Your task to perform on an android device: Go to ESPN.com Image 0: 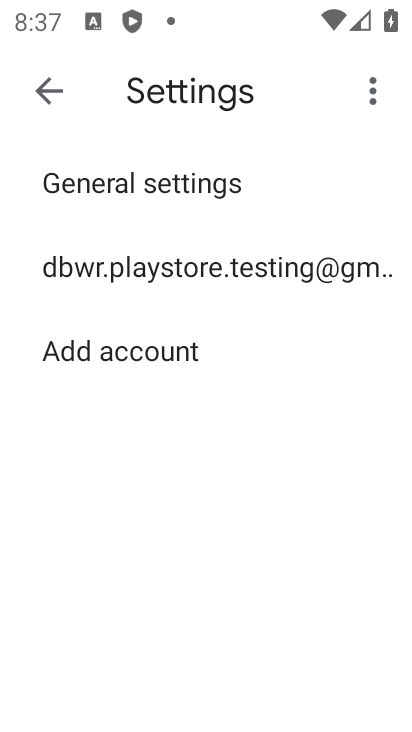
Step 0: press home button
Your task to perform on an android device: Go to ESPN.com Image 1: 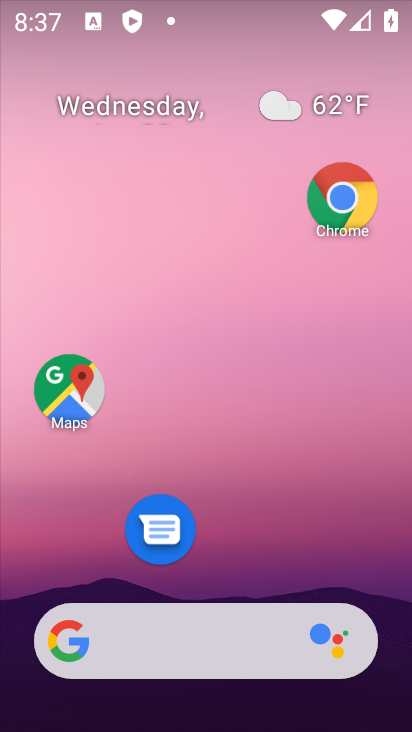
Step 1: click (345, 190)
Your task to perform on an android device: Go to ESPN.com Image 2: 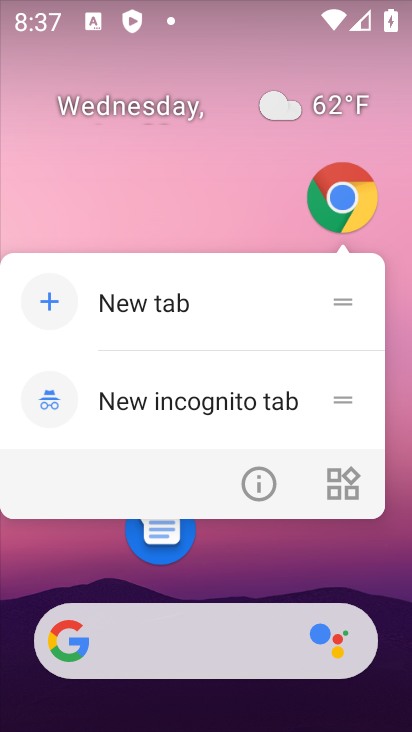
Step 2: click (254, 489)
Your task to perform on an android device: Go to ESPN.com Image 3: 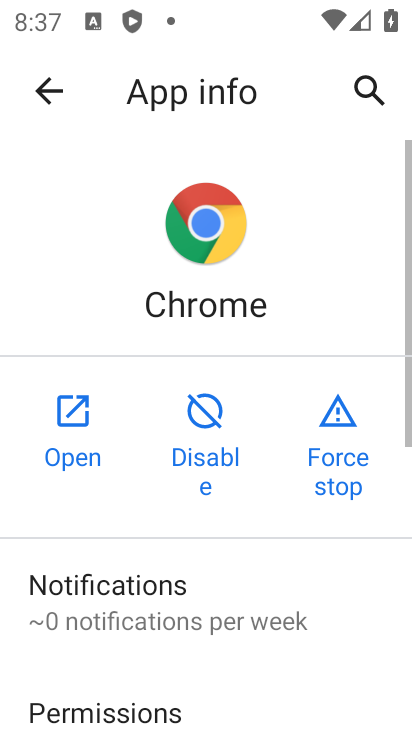
Step 3: click (85, 441)
Your task to perform on an android device: Go to ESPN.com Image 4: 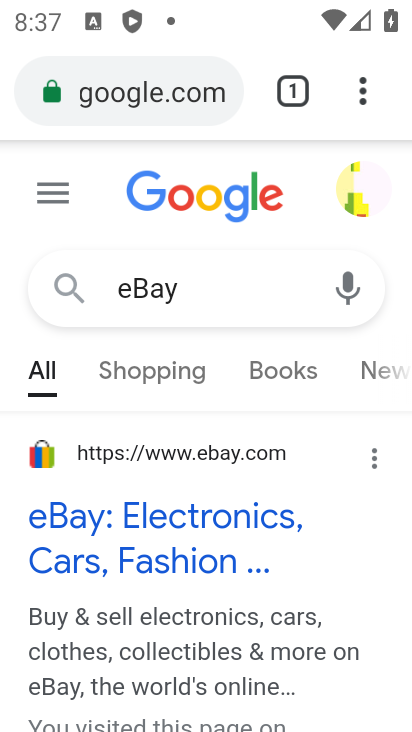
Step 4: click (206, 90)
Your task to perform on an android device: Go to ESPN.com Image 5: 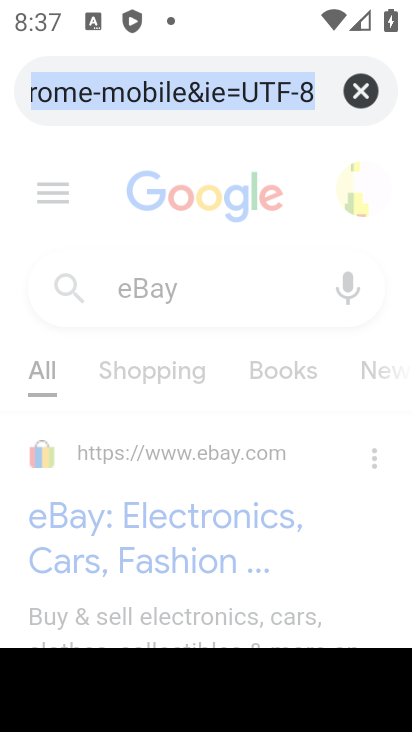
Step 5: type "ESPN.com"
Your task to perform on an android device: Go to ESPN.com Image 6: 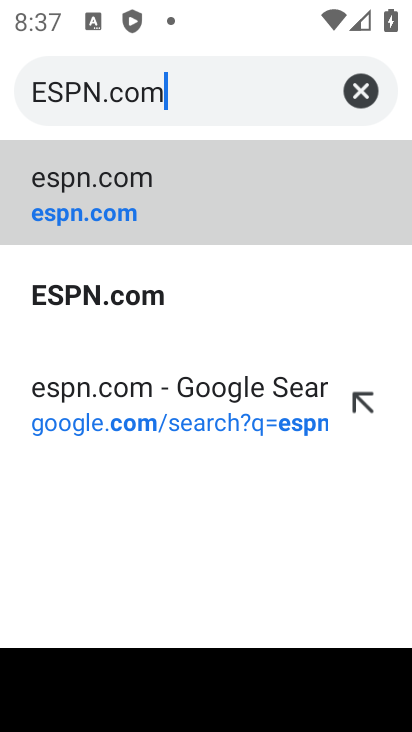
Step 6: click (121, 289)
Your task to perform on an android device: Go to ESPN.com Image 7: 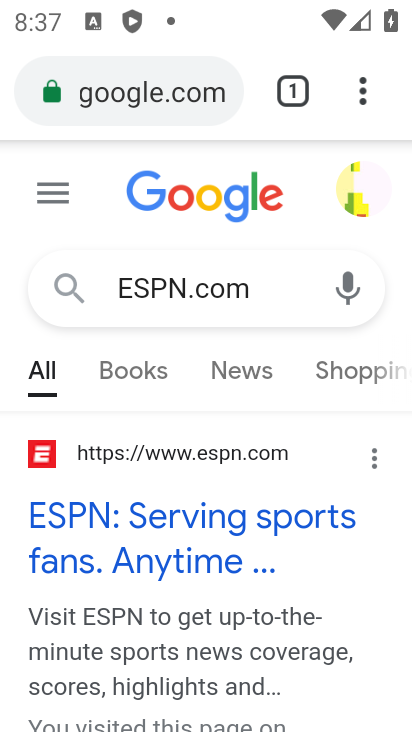
Step 7: task complete